Your task to perform on an android device: remove spam from my inbox in the gmail app Image 0: 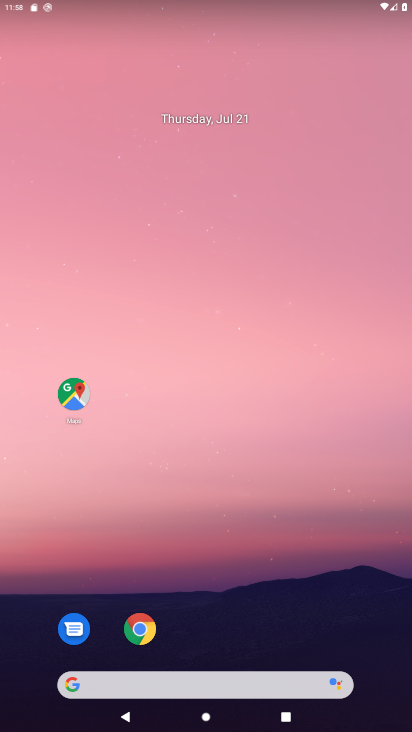
Step 0: drag from (272, 635) to (264, 0)
Your task to perform on an android device: remove spam from my inbox in the gmail app Image 1: 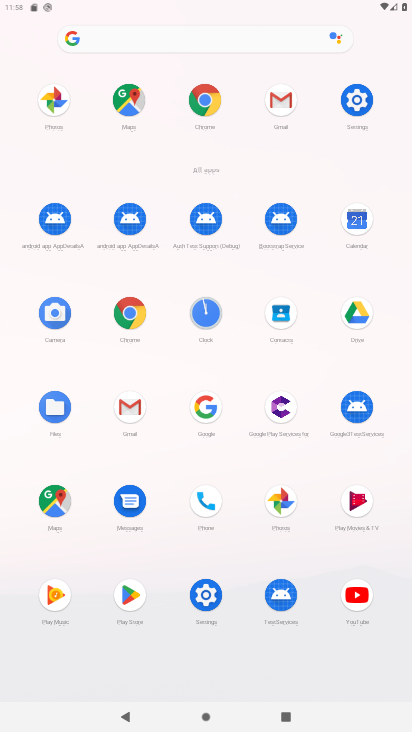
Step 1: click (130, 422)
Your task to perform on an android device: remove spam from my inbox in the gmail app Image 2: 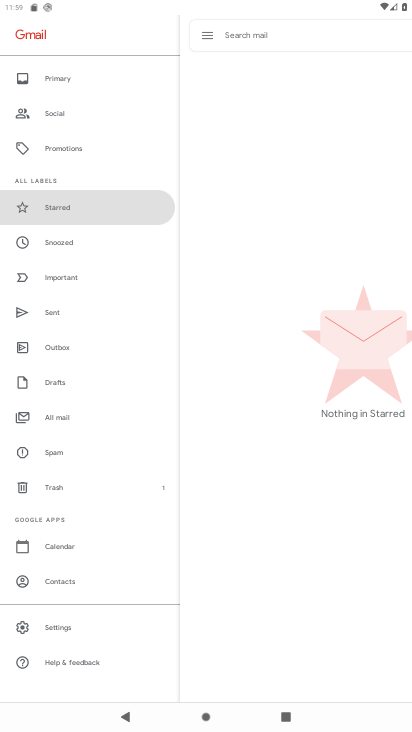
Step 2: click (62, 454)
Your task to perform on an android device: remove spam from my inbox in the gmail app Image 3: 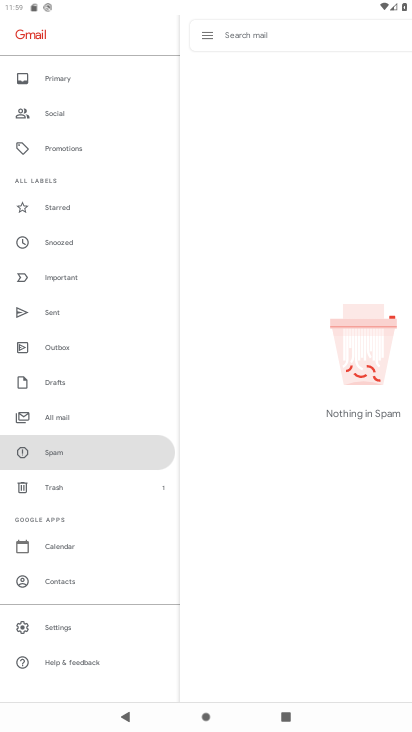
Step 3: task complete